Your task to perform on an android device: Is it going to rain today? Image 0: 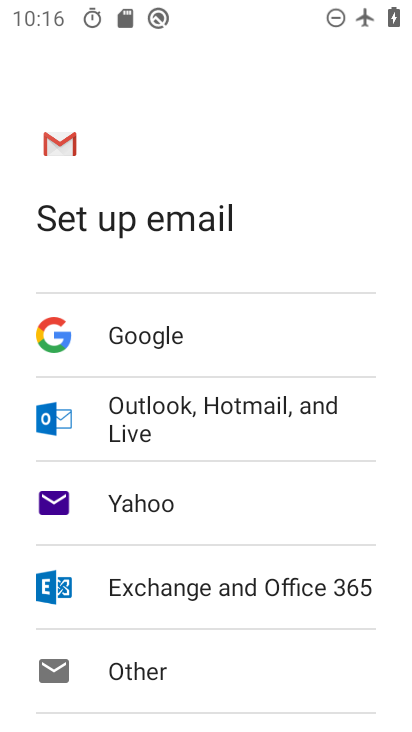
Step 0: press home button
Your task to perform on an android device: Is it going to rain today? Image 1: 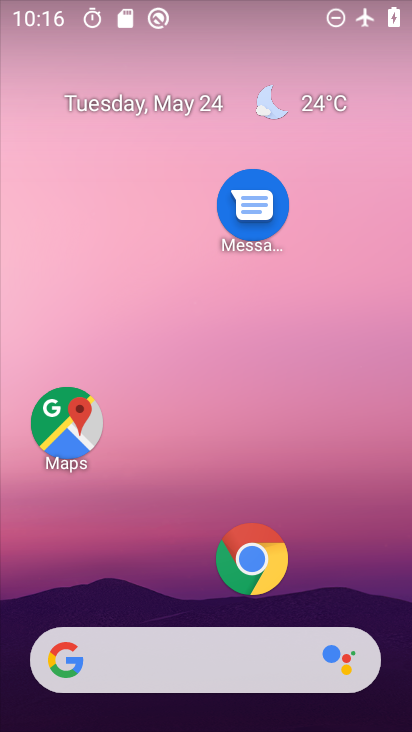
Step 1: drag from (180, 583) to (167, 241)
Your task to perform on an android device: Is it going to rain today? Image 2: 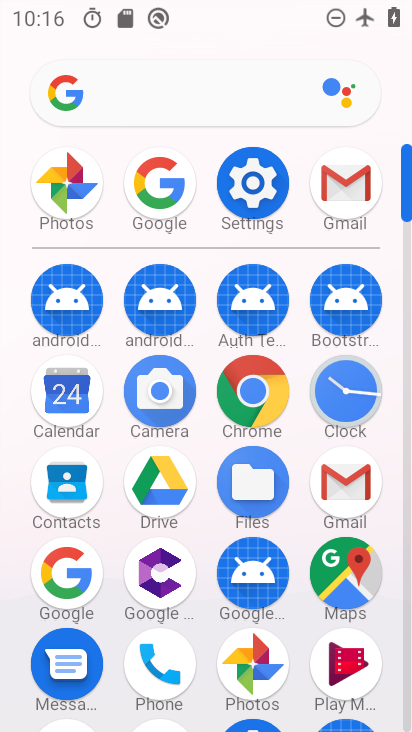
Step 2: click (69, 566)
Your task to perform on an android device: Is it going to rain today? Image 3: 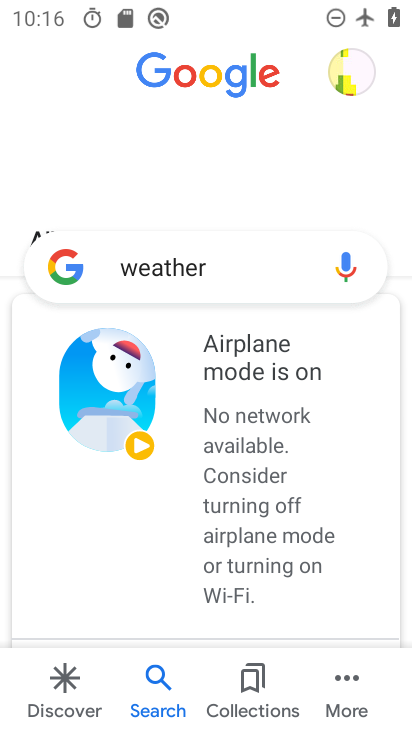
Step 3: task complete